Your task to perform on an android device: open device folders in google photos Image 0: 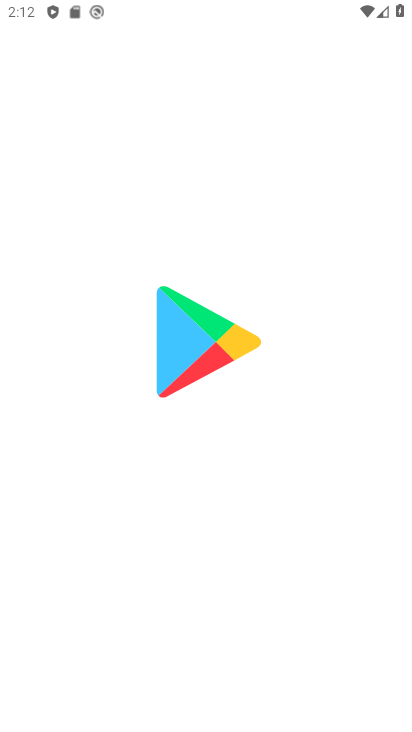
Step 0: press home button
Your task to perform on an android device: open device folders in google photos Image 1: 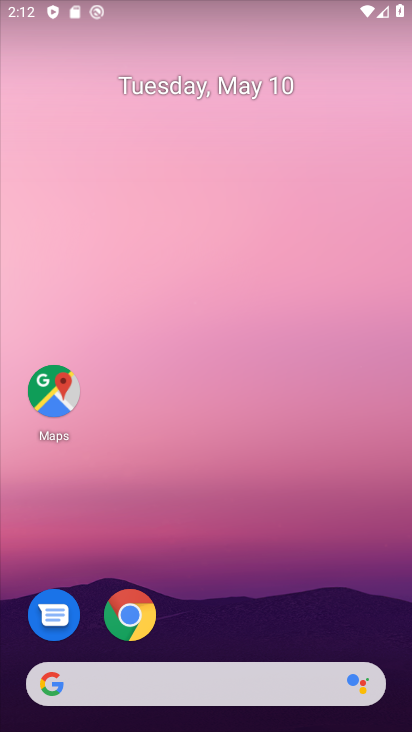
Step 1: drag from (253, 628) to (286, 3)
Your task to perform on an android device: open device folders in google photos Image 2: 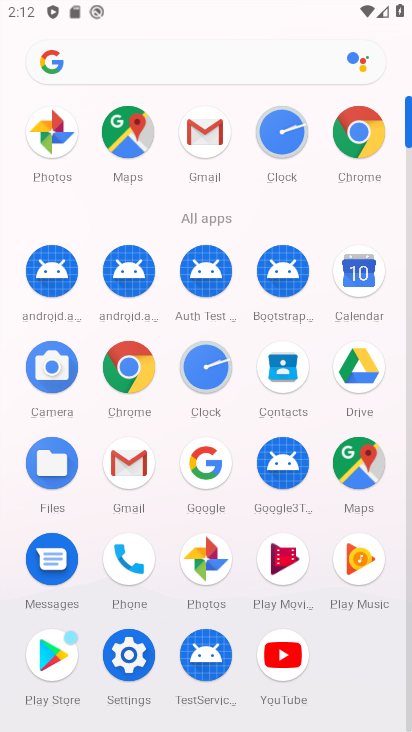
Step 2: click (206, 584)
Your task to perform on an android device: open device folders in google photos Image 3: 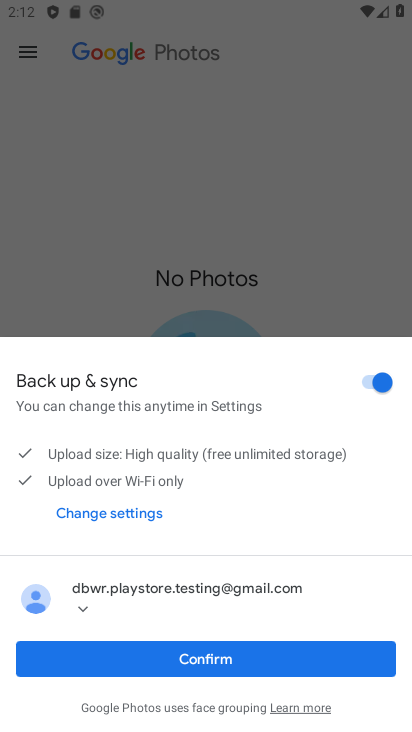
Step 3: click (318, 641)
Your task to perform on an android device: open device folders in google photos Image 4: 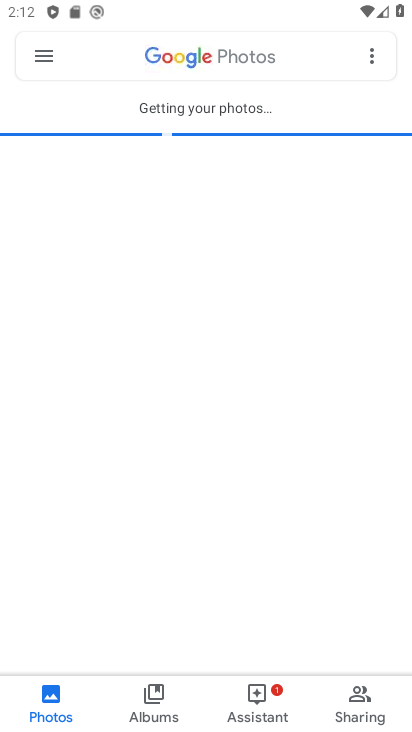
Step 4: click (163, 709)
Your task to perform on an android device: open device folders in google photos Image 5: 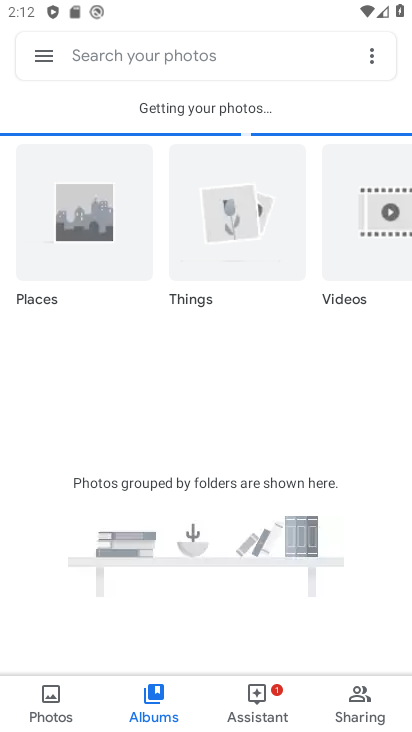
Step 5: task complete